Your task to perform on an android device: open app "Chime – Mobile Banking" Image 0: 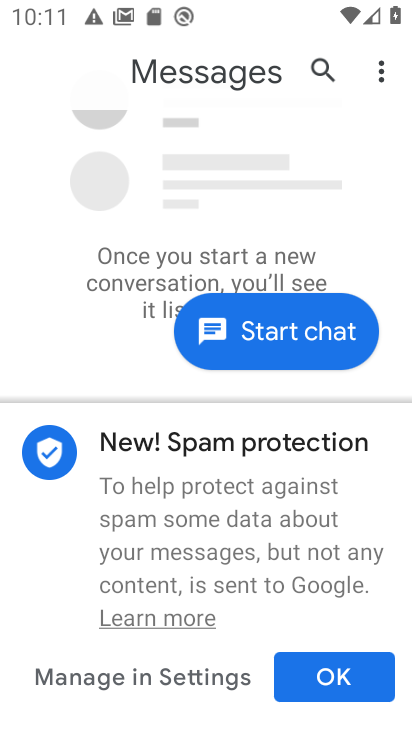
Step 0: press home button
Your task to perform on an android device: open app "Chime – Mobile Banking" Image 1: 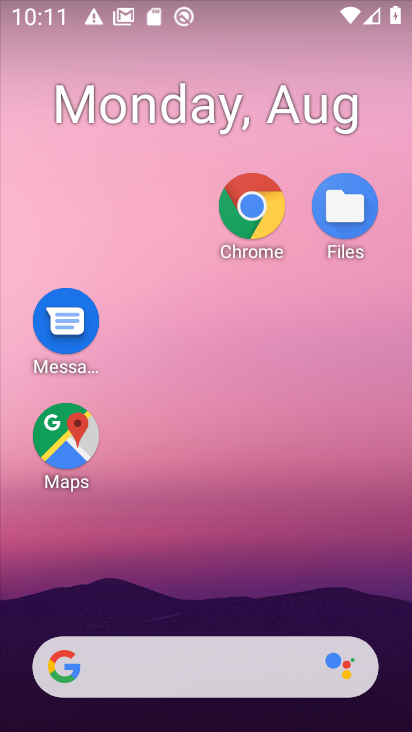
Step 1: drag from (180, 642) to (207, 47)
Your task to perform on an android device: open app "Chime – Mobile Banking" Image 2: 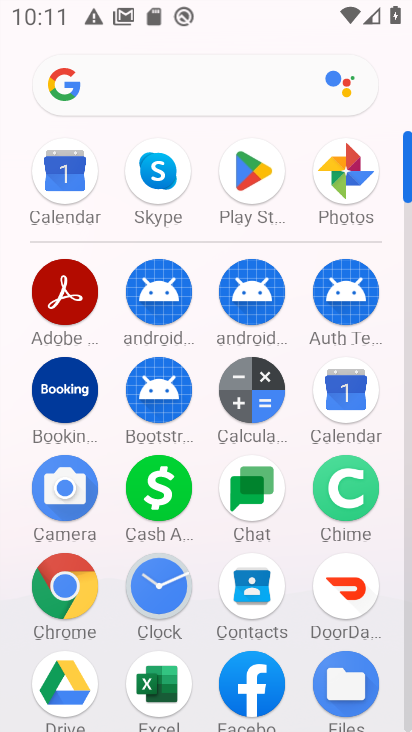
Step 2: click (254, 182)
Your task to perform on an android device: open app "Chime – Mobile Banking" Image 3: 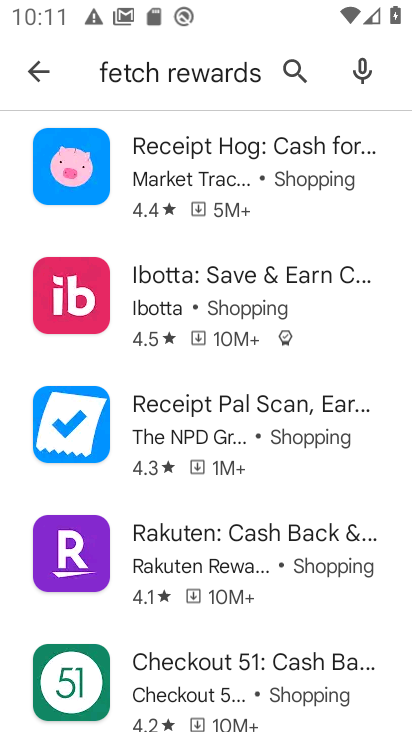
Step 3: click (296, 61)
Your task to perform on an android device: open app "Chime – Mobile Banking" Image 4: 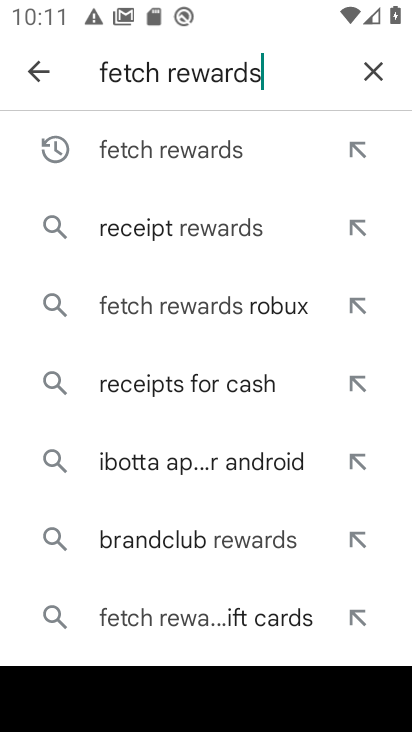
Step 4: click (369, 67)
Your task to perform on an android device: open app "Chime – Mobile Banking" Image 5: 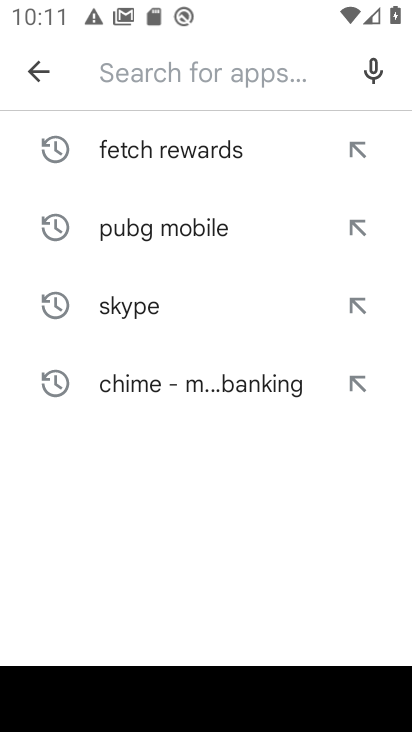
Step 5: type "chime - mobile banking"
Your task to perform on an android device: open app "Chime – Mobile Banking" Image 6: 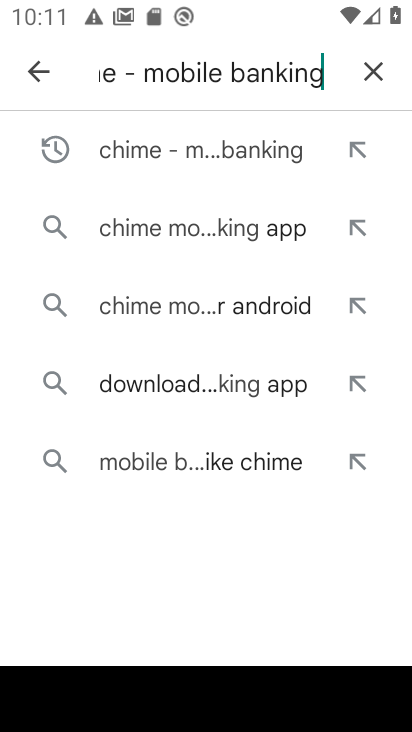
Step 6: click (269, 143)
Your task to perform on an android device: open app "Chime – Mobile Banking" Image 7: 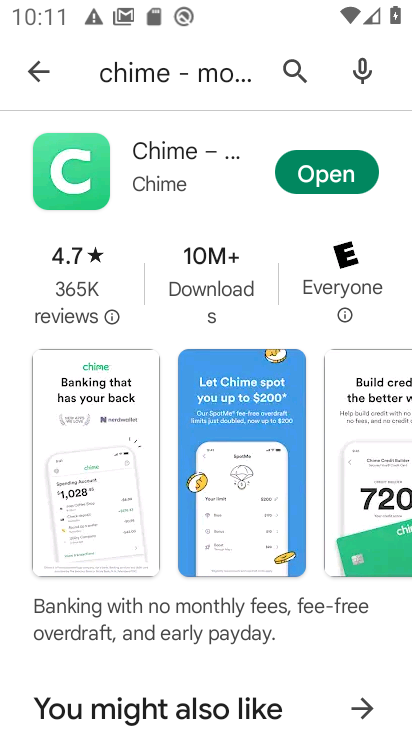
Step 7: click (331, 161)
Your task to perform on an android device: open app "Chime – Mobile Banking" Image 8: 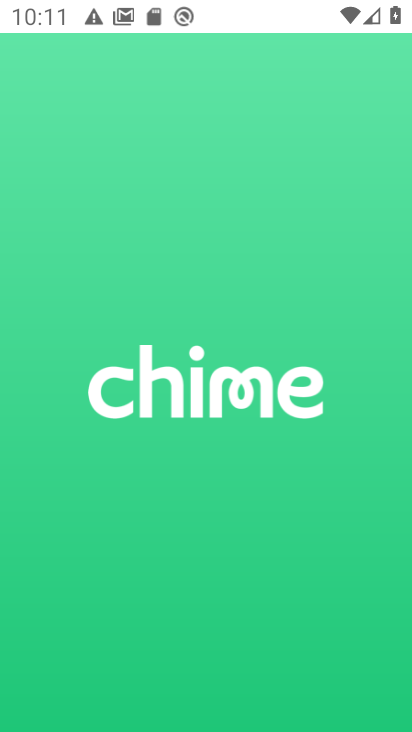
Step 8: task complete